Your task to perform on an android device: check battery use Image 0: 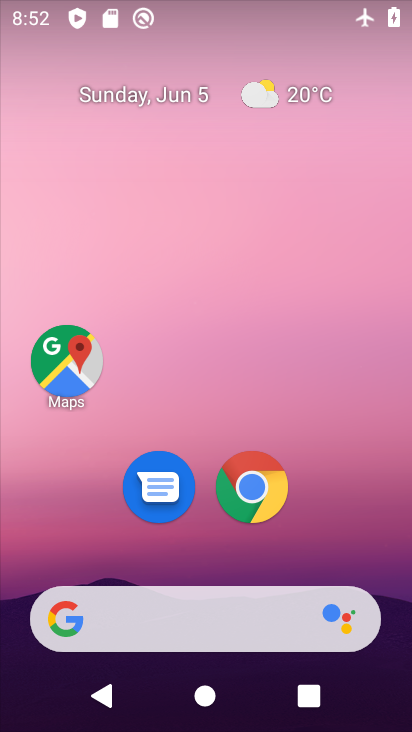
Step 0: drag from (191, 572) to (229, 205)
Your task to perform on an android device: check battery use Image 1: 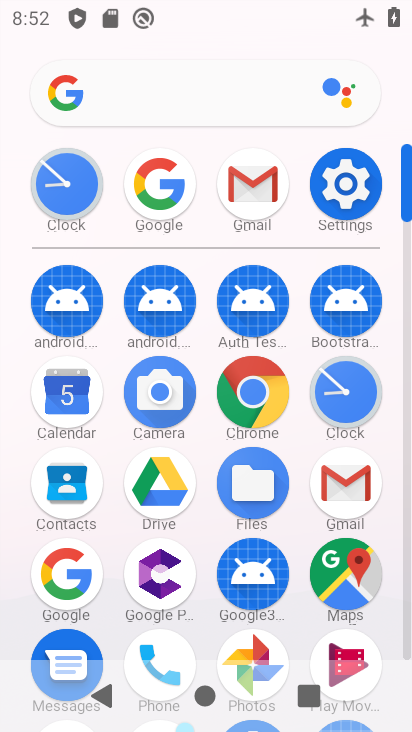
Step 1: click (333, 198)
Your task to perform on an android device: check battery use Image 2: 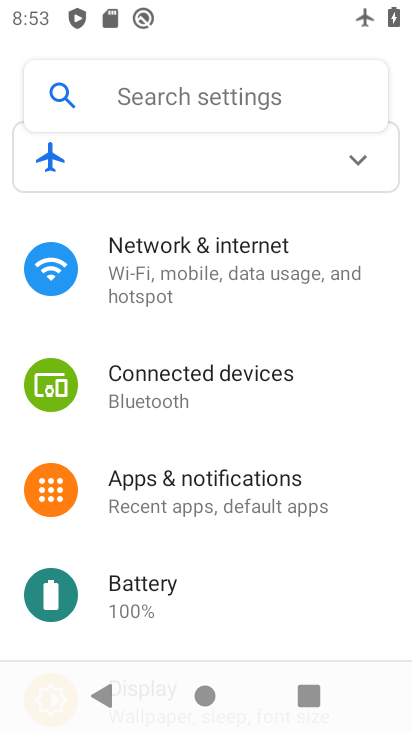
Step 2: click (213, 595)
Your task to perform on an android device: check battery use Image 3: 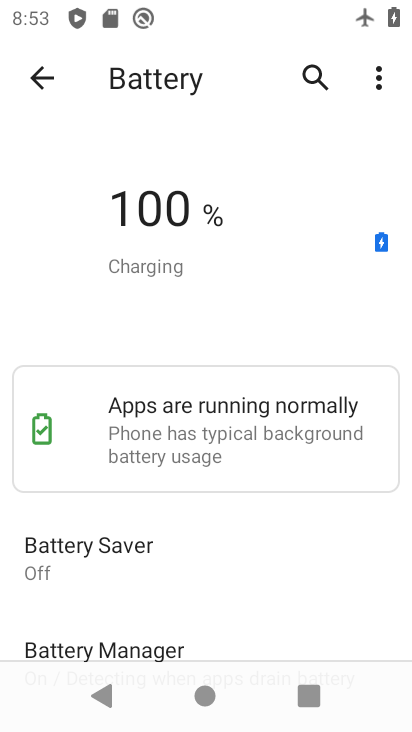
Step 3: task complete